Your task to perform on an android device: turn off location history Image 0: 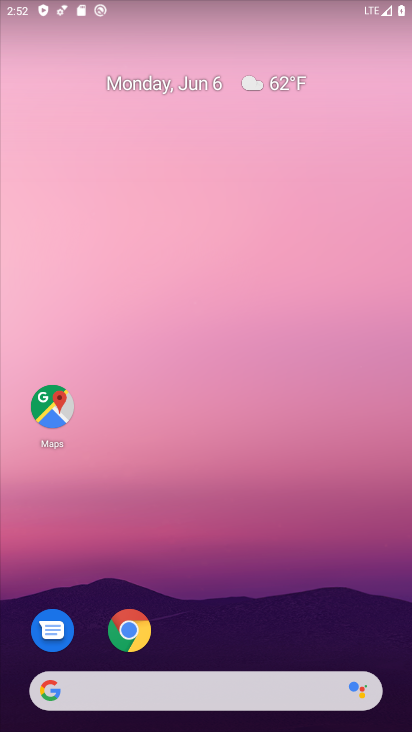
Step 0: click (66, 404)
Your task to perform on an android device: turn off location history Image 1: 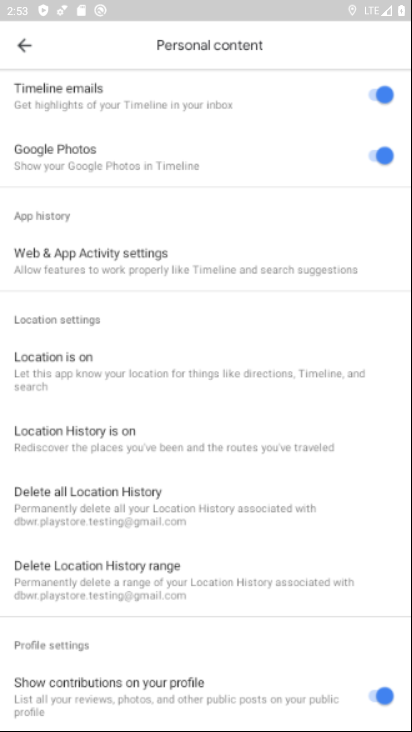
Step 1: click (74, 446)
Your task to perform on an android device: turn off location history Image 2: 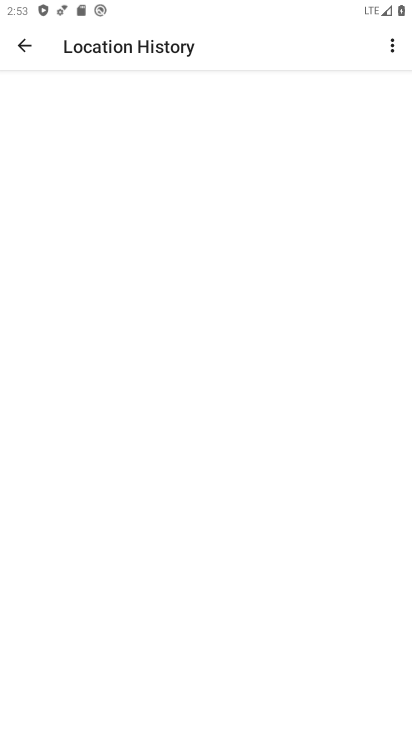
Step 2: task complete